Your task to perform on an android device: Open the map Image 0: 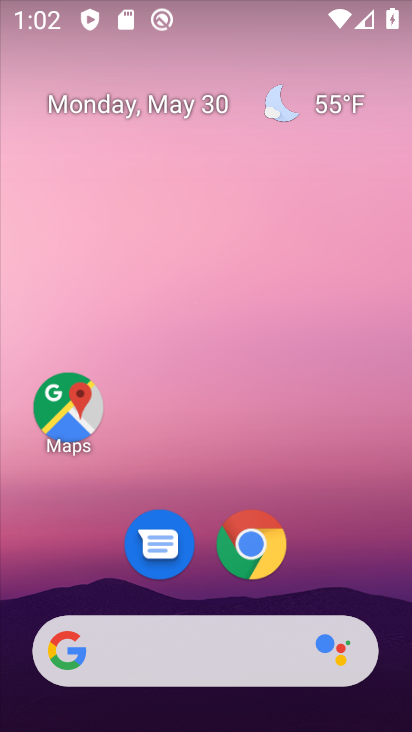
Step 0: click (356, 106)
Your task to perform on an android device: Open the map Image 1: 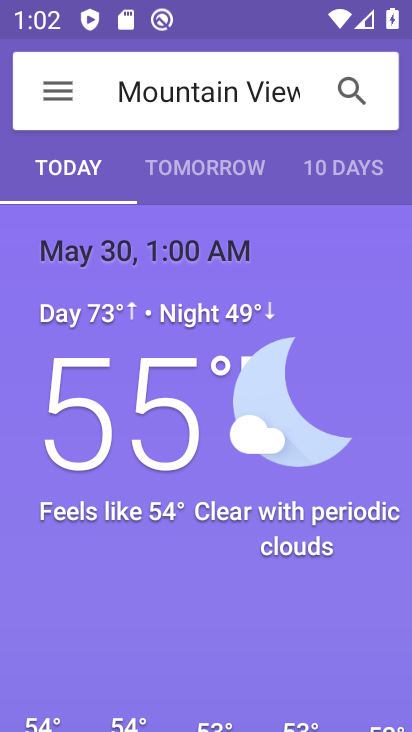
Step 1: press back button
Your task to perform on an android device: Open the map Image 2: 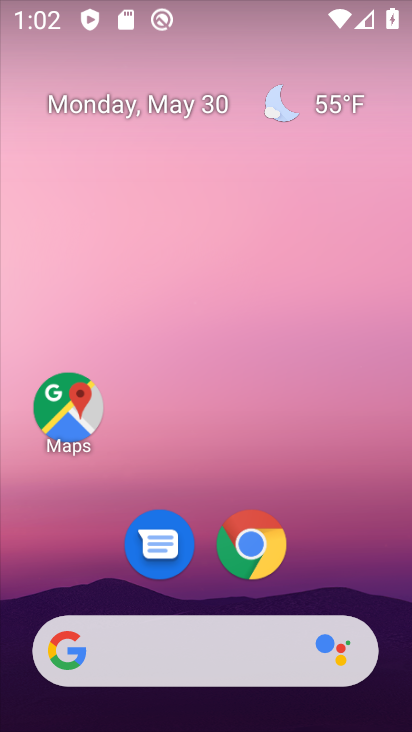
Step 2: click (51, 415)
Your task to perform on an android device: Open the map Image 3: 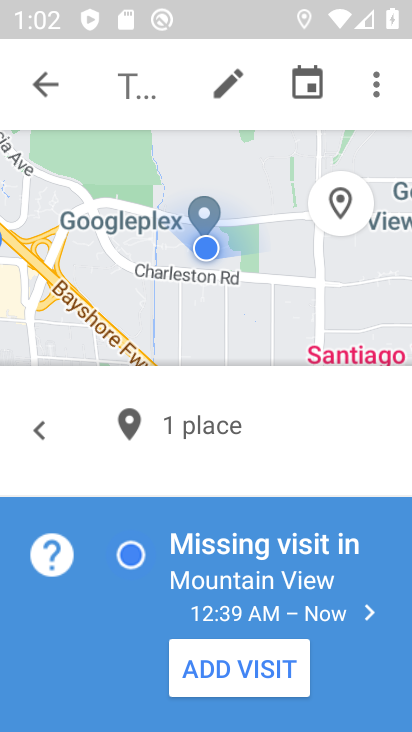
Step 3: task complete